Your task to perform on an android device: remove spam from my inbox in the gmail app Image 0: 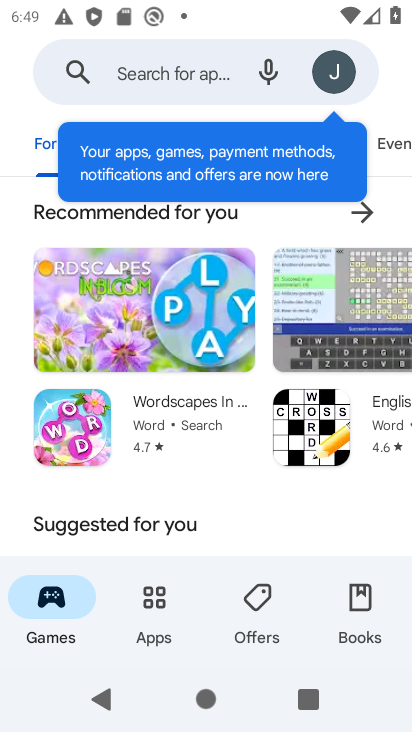
Step 0: drag from (369, 585) to (354, 176)
Your task to perform on an android device: remove spam from my inbox in the gmail app Image 1: 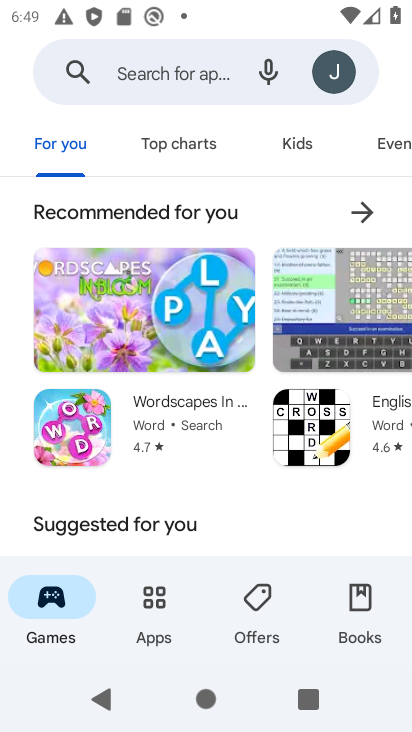
Step 1: press home button
Your task to perform on an android device: remove spam from my inbox in the gmail app Image 2: 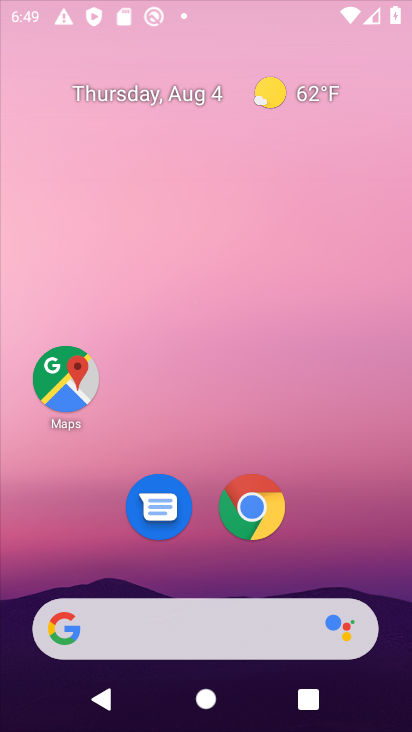
Step 2: drag from (370, 655) to (246, 15)
Your task to perform on an android device: remove spam from my inbox in the gmail app Image 3: 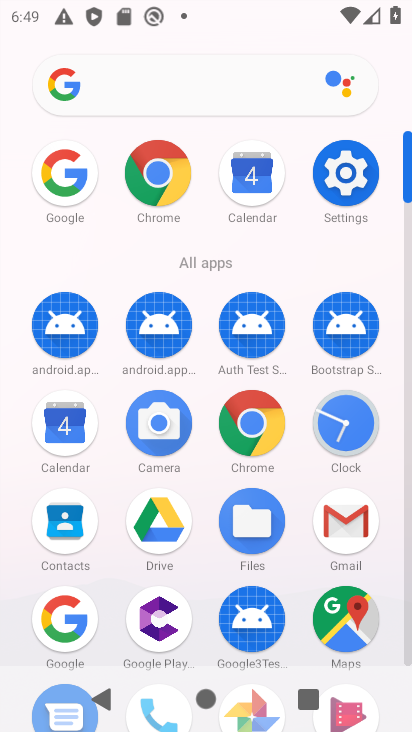
Step 3: click (355, 516)
Your task to perform on an android device: remove spam from my inbox in the gmail app Image 4: 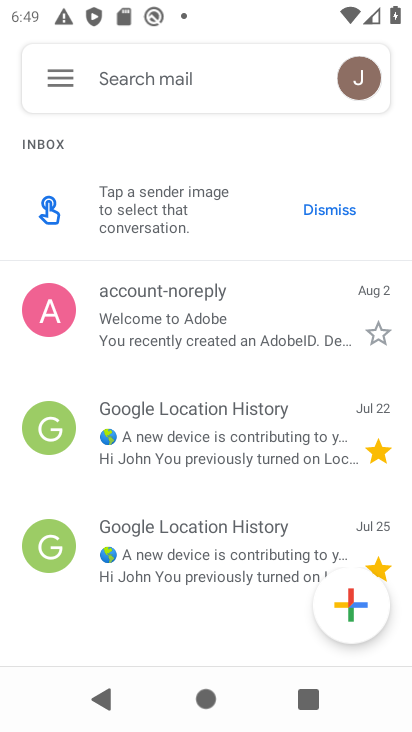
Step 4: click (38, 89)
Your task to perform on an android device: remove spam from my inbox in the gmail app Image 5: 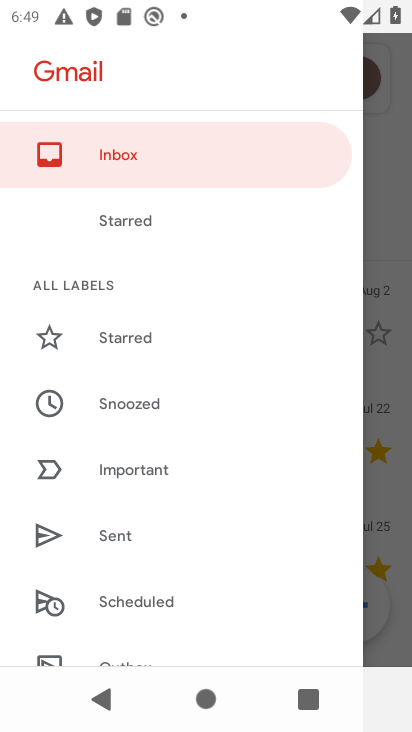
Step 5: task complete